Your task to perform on an android device: turn on the 12-hour format for clock Image 0: 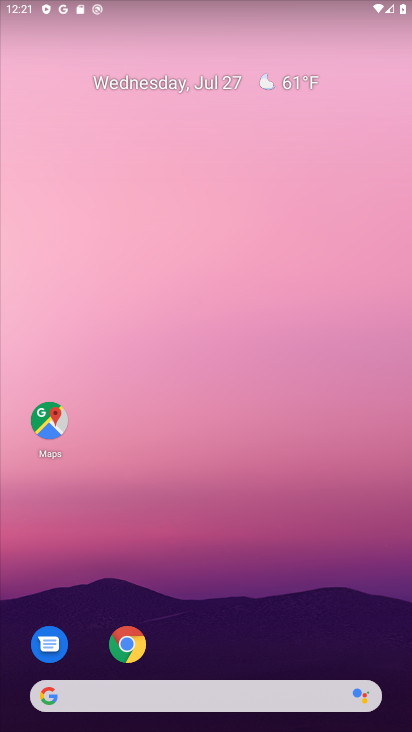
Step 0: drag from (191, 653) to (289, 36)
Your task to perform on an android device: turn on the 12-hour format for clock Image 1: 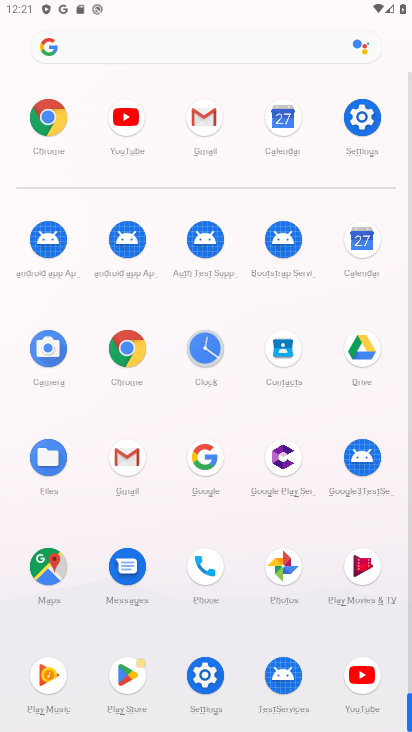
Step 1: click (200, 353)
Your task to perform on an android device: turn on the 12-hour format for clock Image 2: 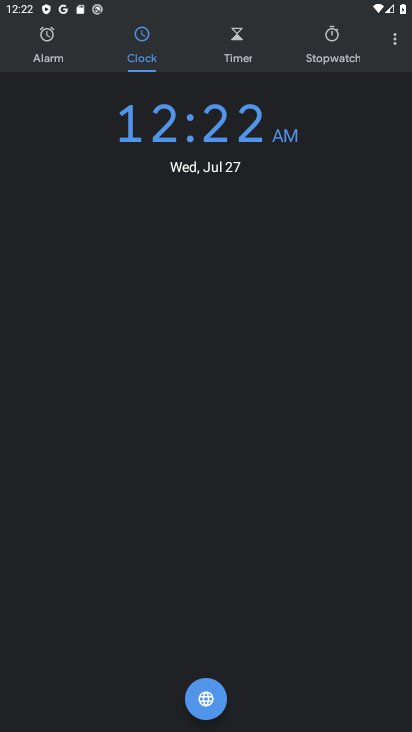
Step 2: drag from (387, 31) to (333, 76)
Your task to perform on an android device: turn on the 12-hour format for clock Image 3: 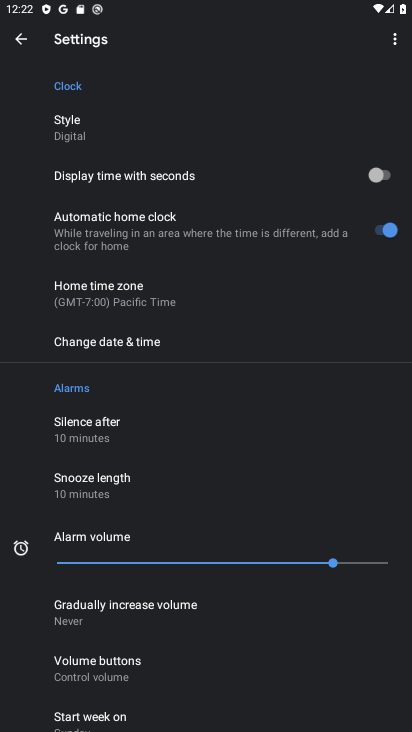
Step 3: drag from (189, 512) to (270, 168)
Your task to perform on an android device: turn on the 12-hour format for clock Image 4: 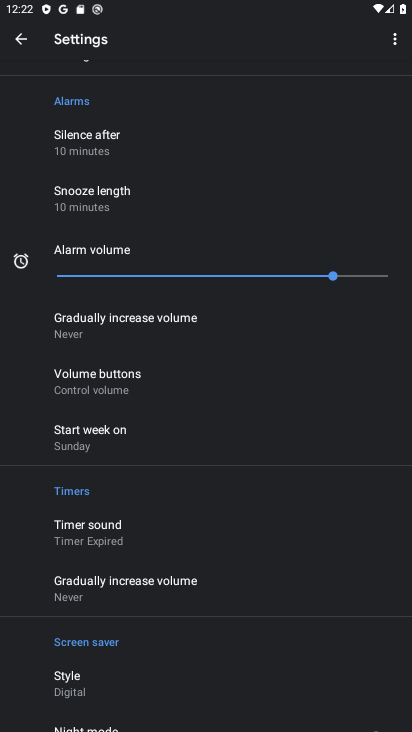
Step 4: drag from (212, 238) to (218, 721)
Your task to perform on an android device: turn on the 12-hour format for clock Image 5: 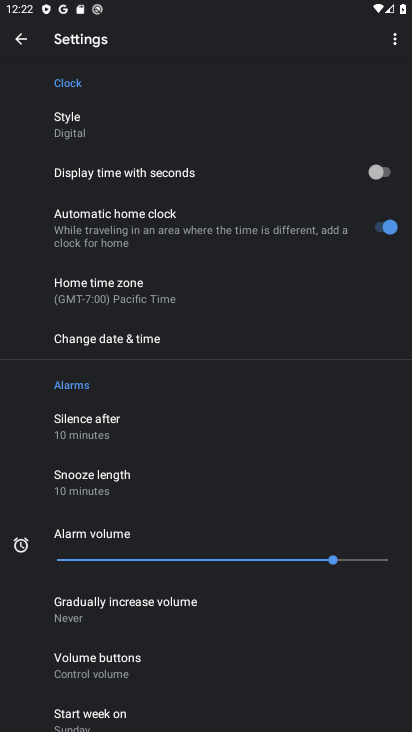
Step 5: click (156, 340)
Your task to perform on an android device: turn on the 12-hour format for clock Image 6: 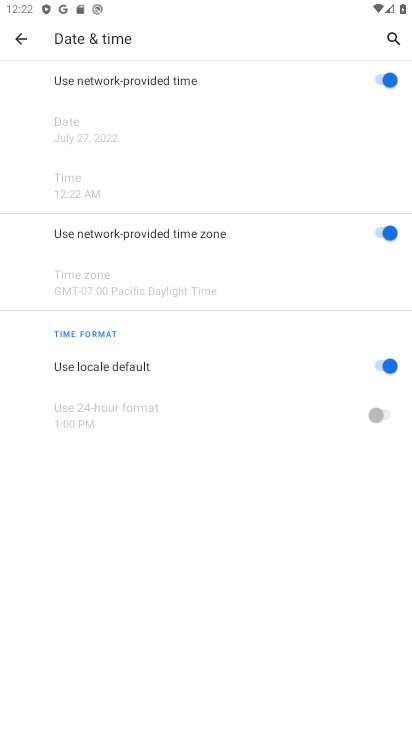
Step 6: task complete